Your task to perform on an android device: check storage Image 0: 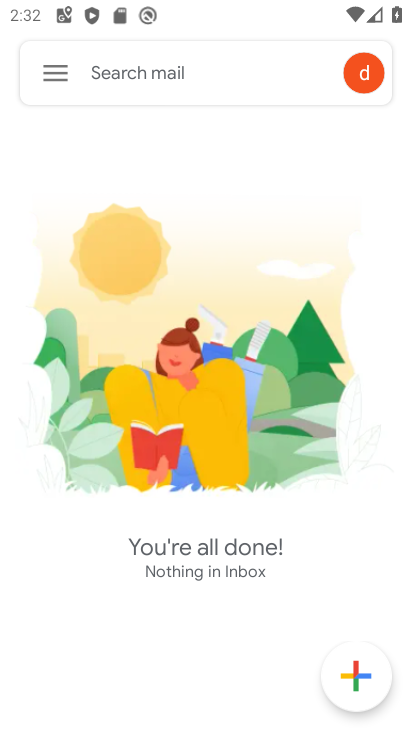
Step 0: press home button
Your task to perform on an android device: check storage Image 1: 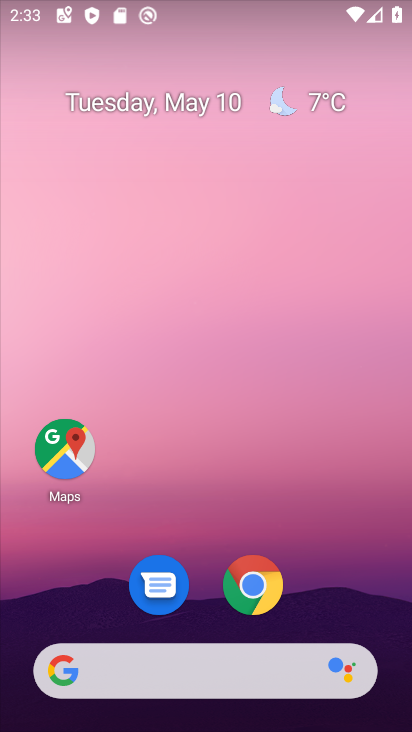
Step 1: drag from (332, 585) to (285, 27)
Your task to perform on an android device: check storage Image 2: 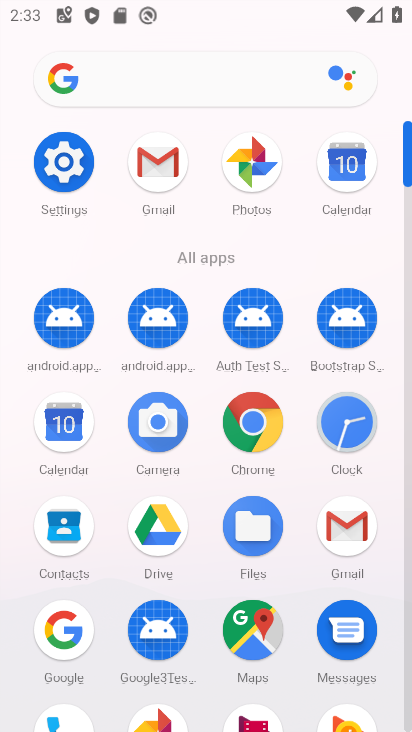
Step 2: click (58, 166)
Your task to perform on an android device: check storage Image 3: 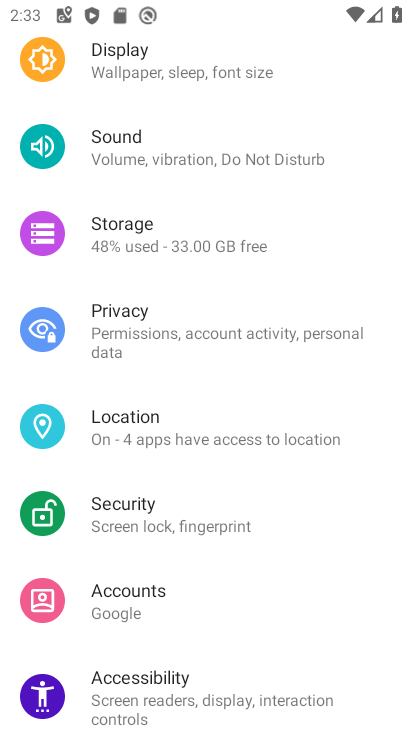
Step 3: click (215, 235)
Your task to perform on an android device: check storage Image 4: 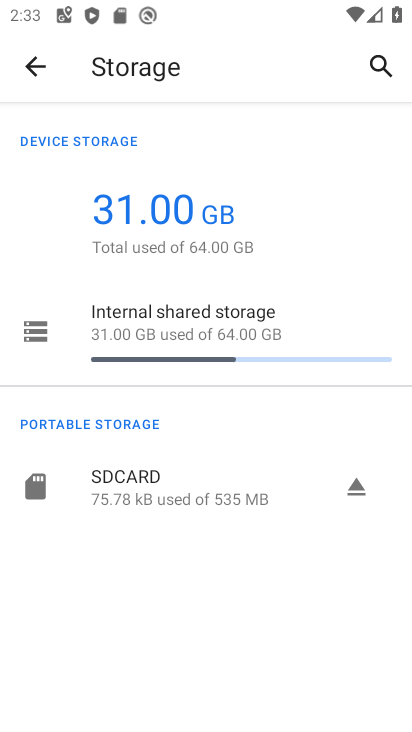
Step 4: task complete